Your task to perform on an android device: Go to settings Image 0: 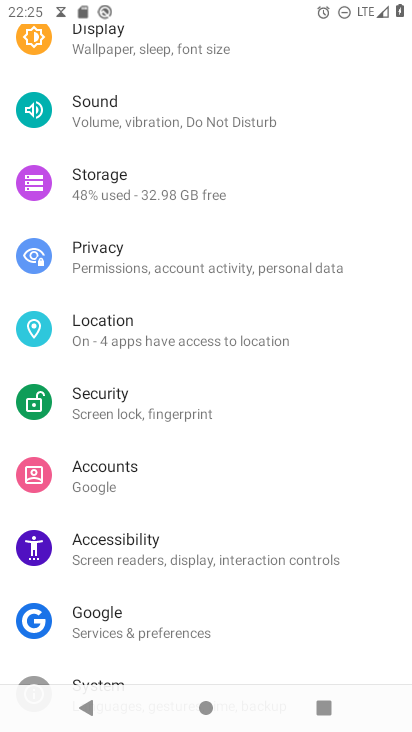
Step 0: drag from (139, 669) to (133, 360)
Your task to perform on an android device: Go to settings Image 1: 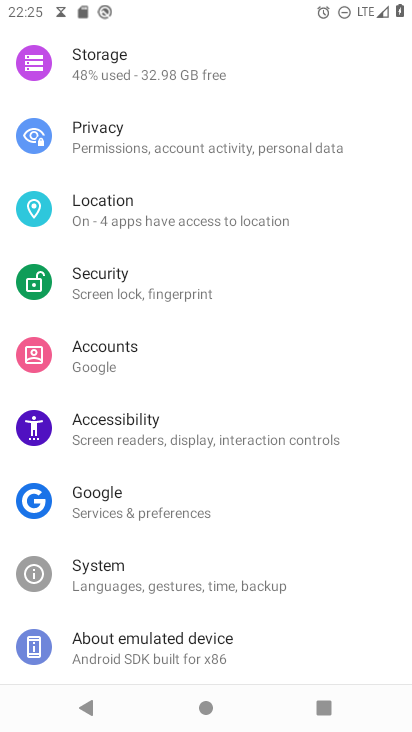
Step 1: task complete